Your task to perform on an android device: Go to accessibility settings Image 0: 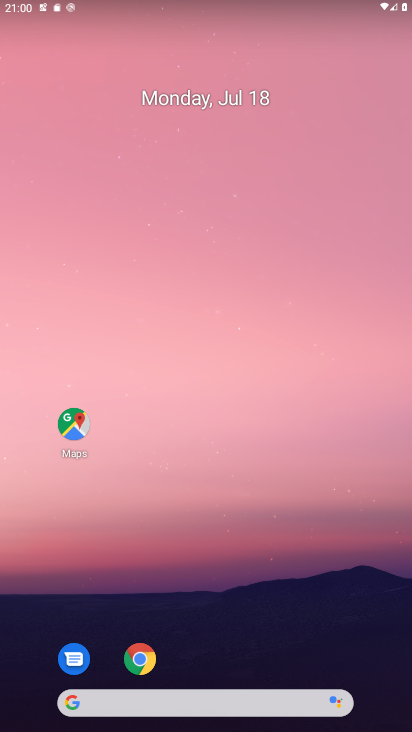
Step 0: drag from (266, 695) to (223, 250)
Your task to perform on an android device: Go to accessibility settings Image 1: 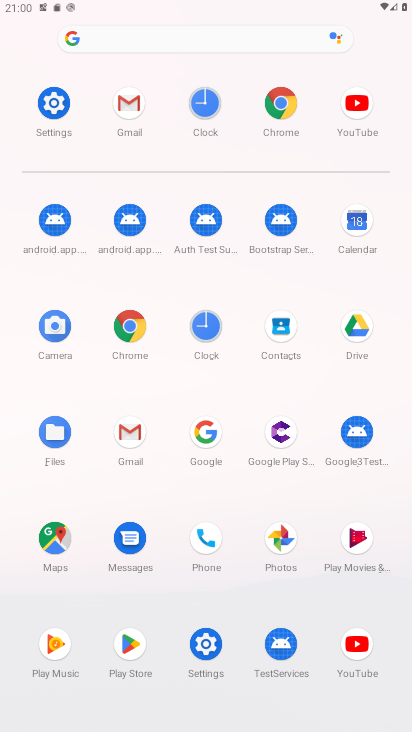
Step 1: click (44, 112)
Your task to perform on an android device: Go to accessibility settings Image 2: 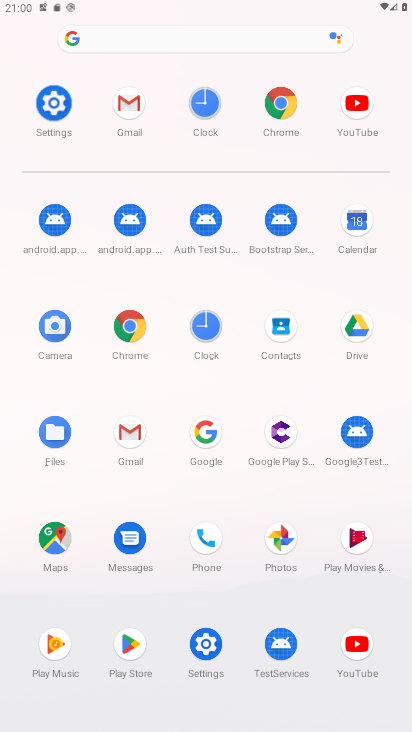
Step 2: click (44, 112)
Your task to perform on an android device: Go to accessibility settings Image 3: 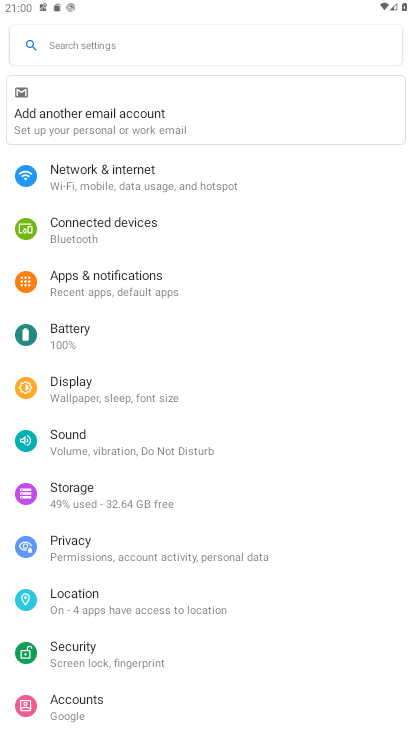
Step 3: drag from (79, 563) to (79, 339)
Your task to perform on an android device: Go to accessibility settings Image 4: 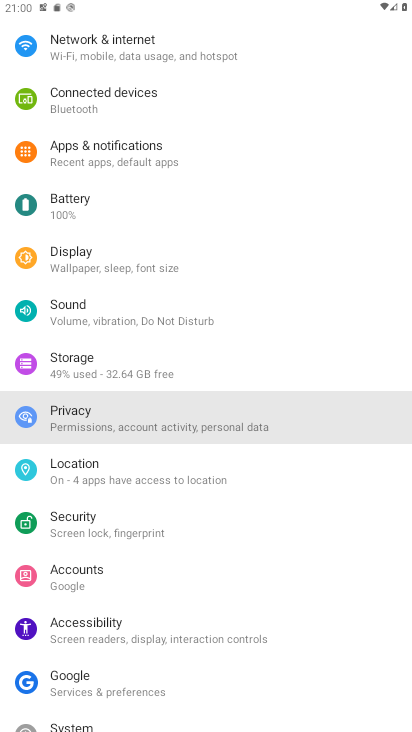
Step 4: drag from (81, 586) to (81, 333)
Your task to perform on an android device: Go to accessibility settings Image 5: 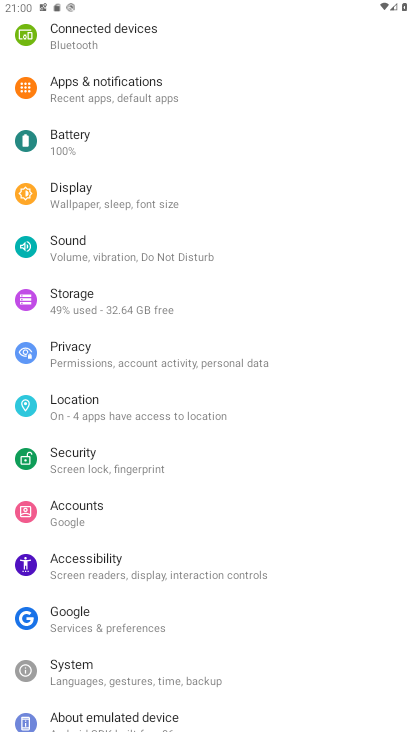
Step 5: drag from (144, 620) to (144, 333)
Your task to perform on an android device: Go to accessibility settings Image 6: 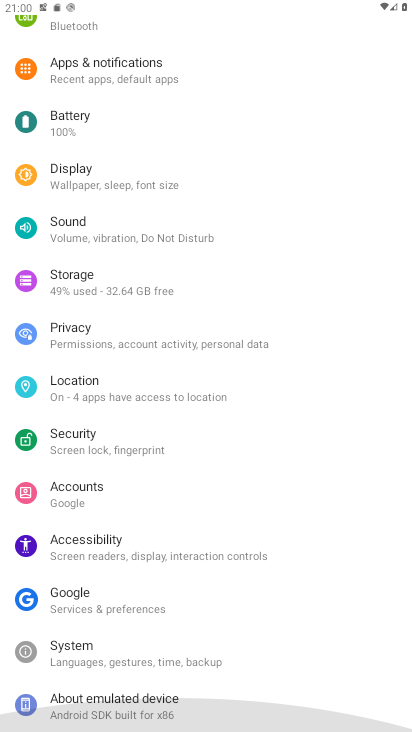
Step 6: drag from (111, 584) to (110, 324)
Your task to perform on an android device: Go to accessibility settings Image 7: 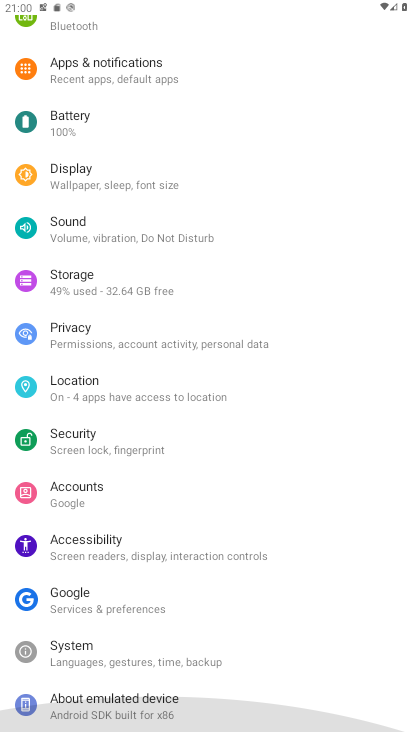
Step 7: drag from (124, 628) to (145, 404)
Your task to perform on an android device: Go to accessibility settings Image 8: 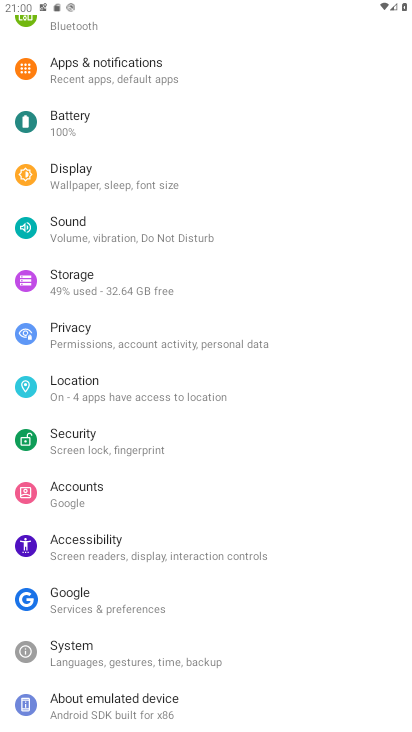
Step 8: click (79, 535)
Your task to perform on an android device: Go to accessibility settings Image 9: 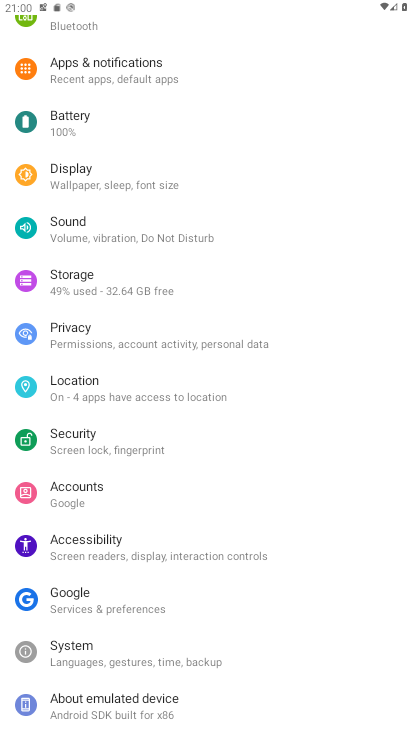
Step 9: click (80, 539)
Your task to perform on an android device: Go to accessibility settings Image 10: 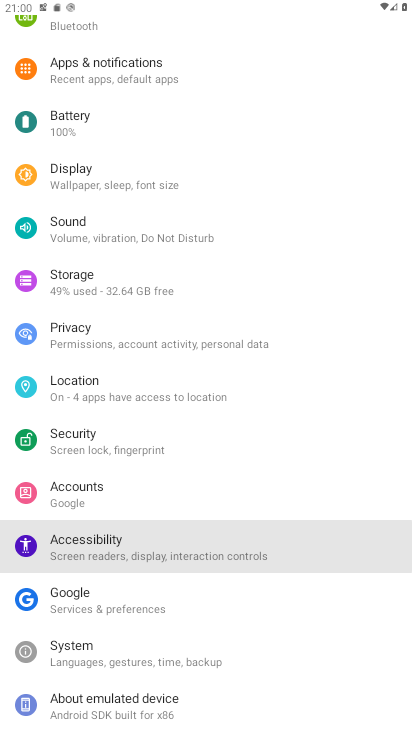
Step 10: click (81, 541)
Your task to perform on an android device: Go to accessibility settings Image 11: 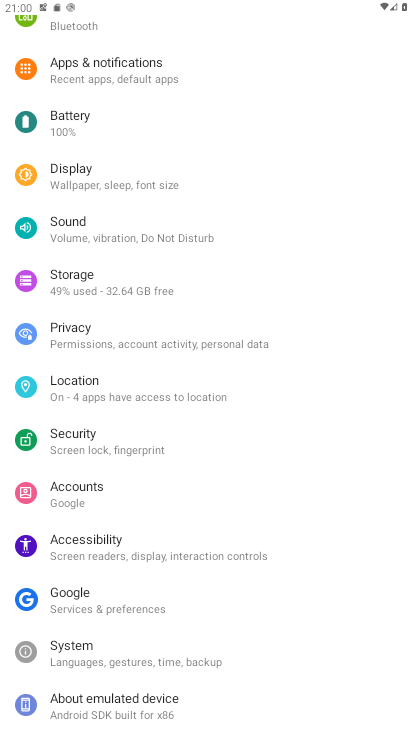
Step 11: click (86, 546)
Your task to perform on an android device: Go to accessibility settings Image 12: 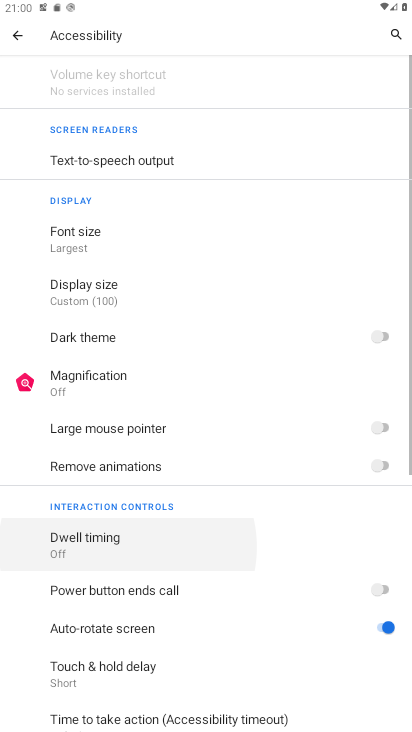
Step 12: click (91, 549)
Your task to perform on an android device: Go to accessibility settings Image 13: 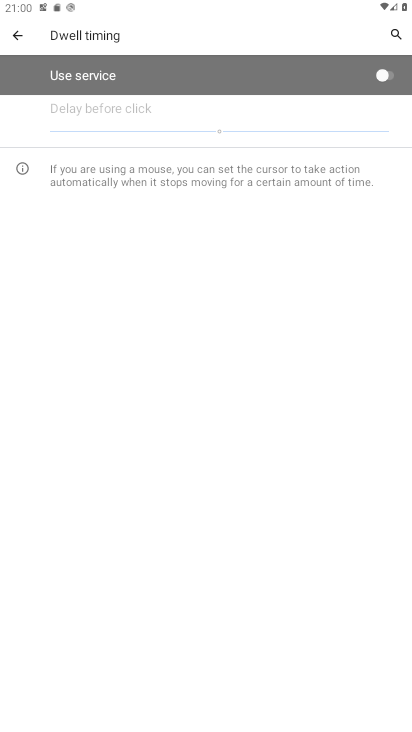
Step 13: task complete